Your task to perform on an android device: Go to Maps Image 0: 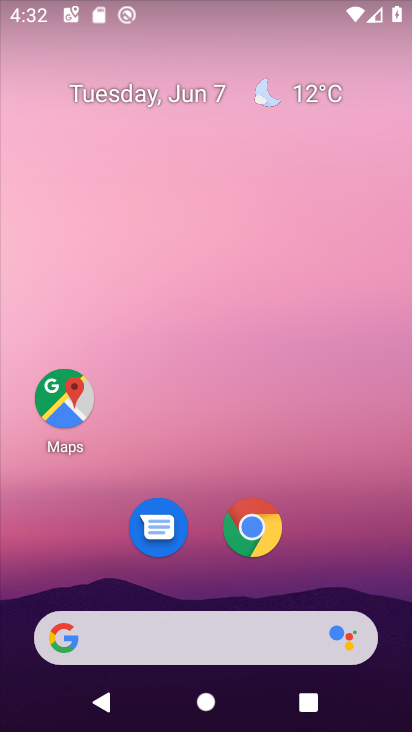
Step 0: click (62, 402)
Your task to perform on an android device: Go to Maps Image 1: 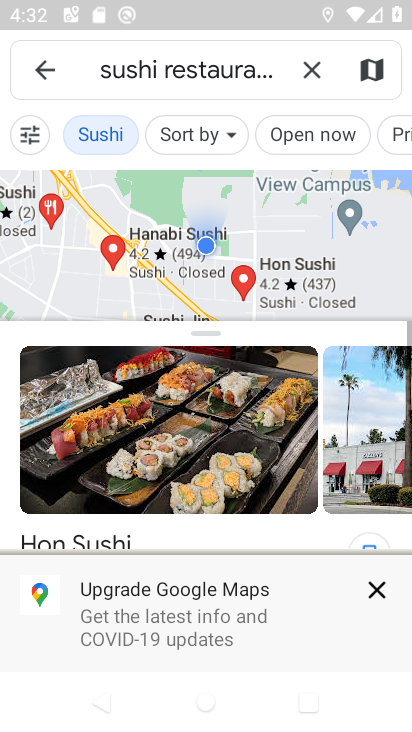
Step 1: click (46, 61)
Your task to perform on an android device: Go to Maps Image 2: 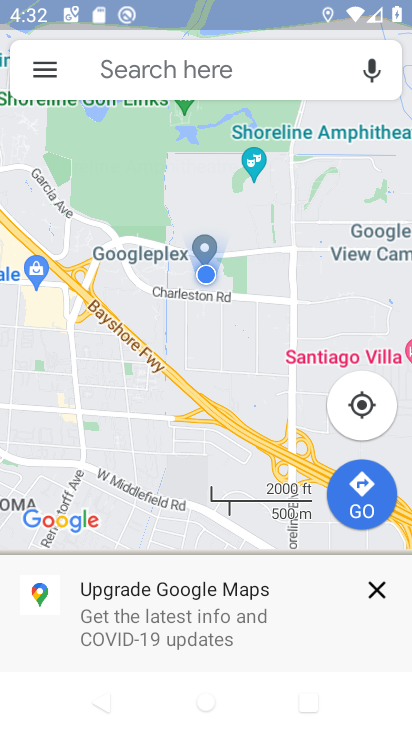
Step 2: task complete